Your task to perform on an android device: choose inbox layout in the gmail app Image 0: 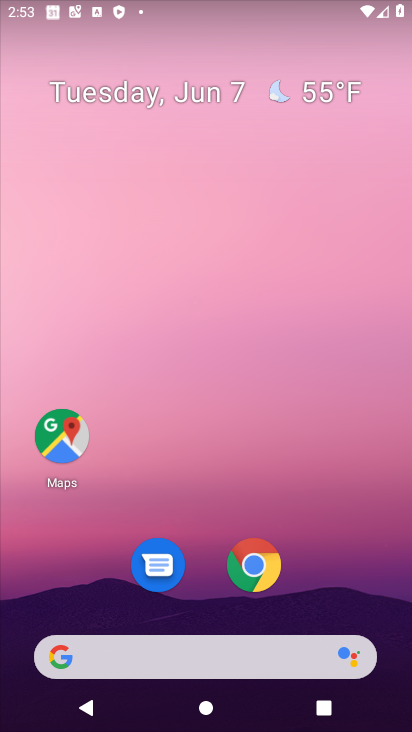
Step 0: drag from (314, 675) to (324, 55)
Your task to perform on an android device: choose inbox layout in the gmail app Image 1: 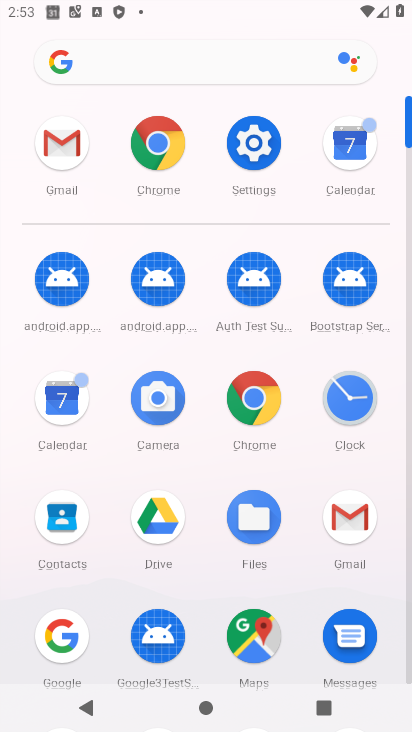
Step 1: click (361, 503)
Your task to perform on an android device: choose inbox layout in the gmail app Image 2: 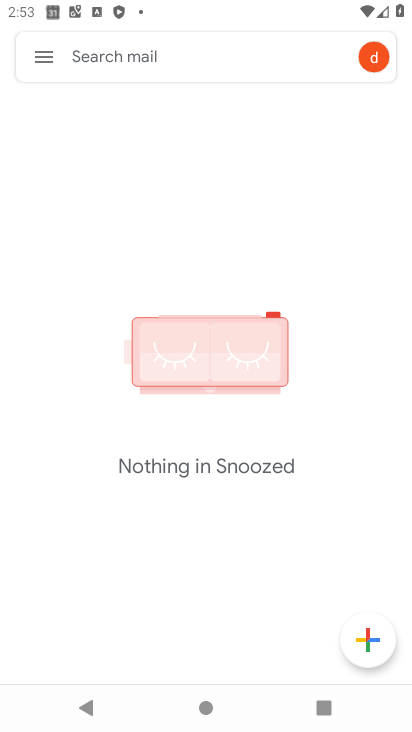
Step 2: click (50, 54)
Your task to perform on an android device: choose inbox layout in the gmail app Image 3: 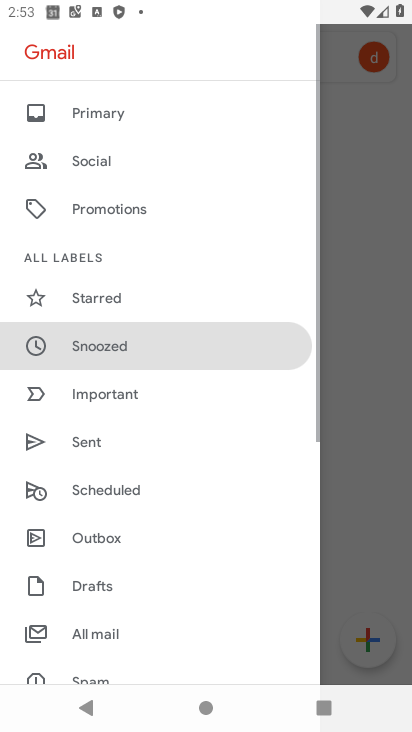
Step 3: drag from (127, 611) to (145, 275)
Your task to perform on an android device: choose inbox layout in the gmail app Image 4: 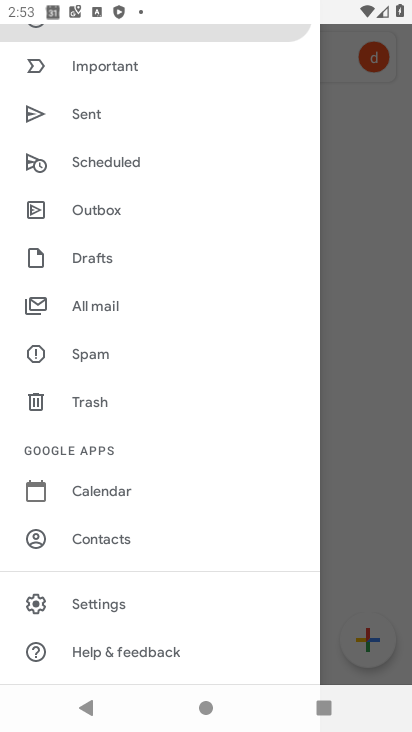
Step 4: click (122, 605)
Your task to perform on an android device: choose inbox layout in the gmail app Image 5: 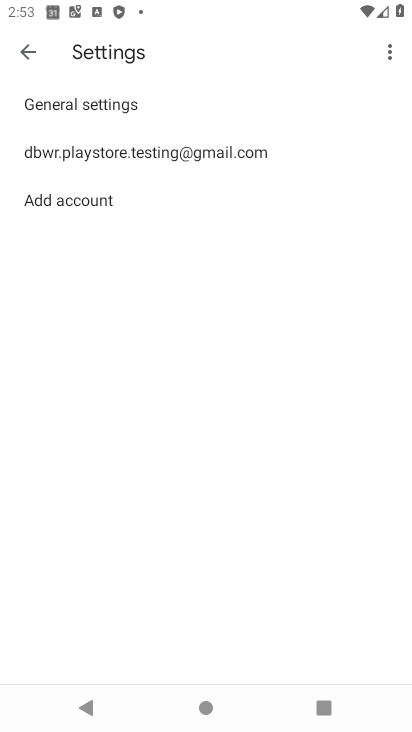
Step 5: click (149, 149)
Your task to perform on an android device: choose inbox layout in the gmail app Image 6: 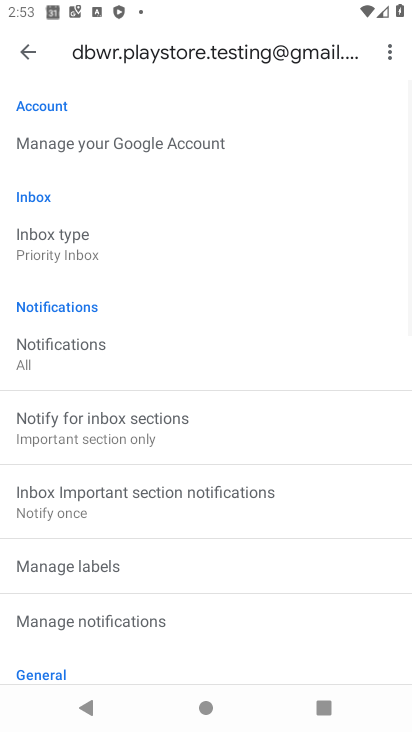
Step 6: click (60, 247)
Your task to perform on an android device: choose inbox layout in the gmail app Image 7: 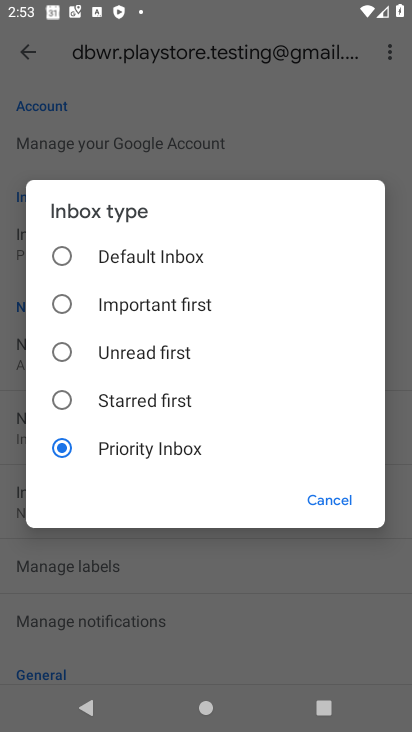
Step 7: click (63, 248)
Your task to perform on an android device: choose inbox layout in the gmail app Image 8: 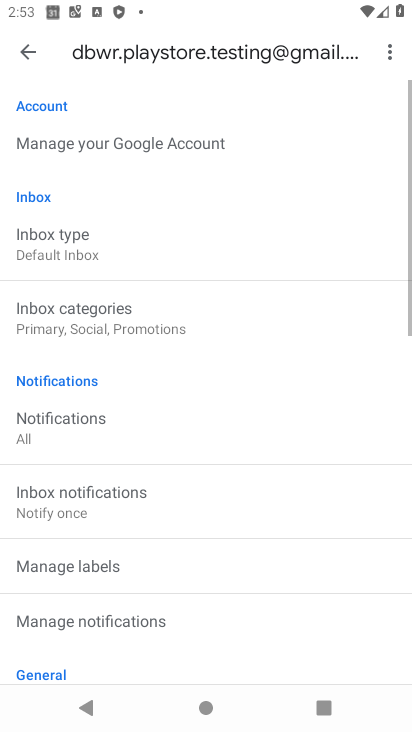
Step 8: task complete